Your task to perform on an android device: Go to Google maps Image 0: 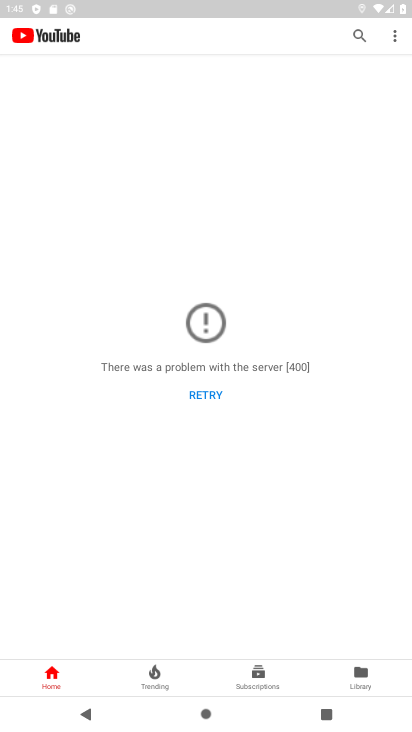
Step 0: press home button
Your task to perform on an android device: Go to Google maps Image 1: 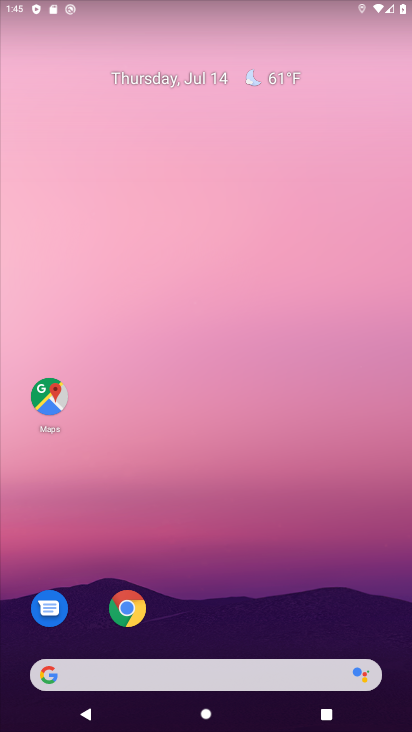
Step 1: click (44, 395)
Your task to perform on an android device: Go to Google maps Image 2: 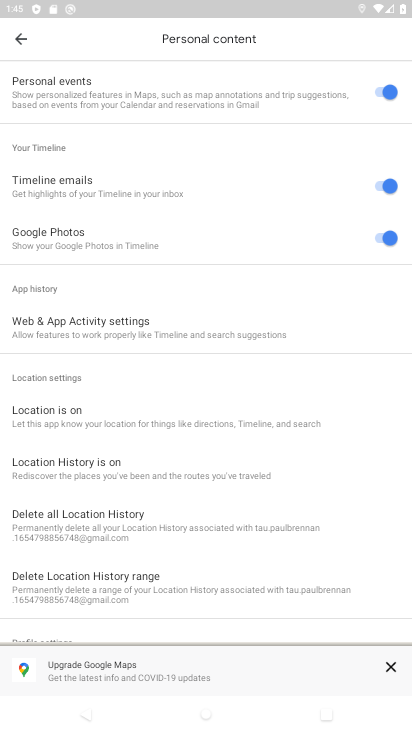
Step 2: task complete